Your task to perform on an android device: Open the calendar and show me this week's events Image 0: 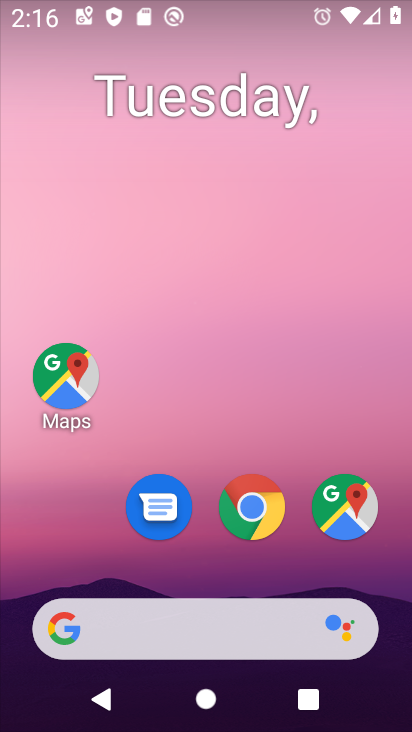
Step 0: drag from (130, 607) to (139, 253)
Your task to perform on an android device: Open the calendar and show me this week's events Image 1: 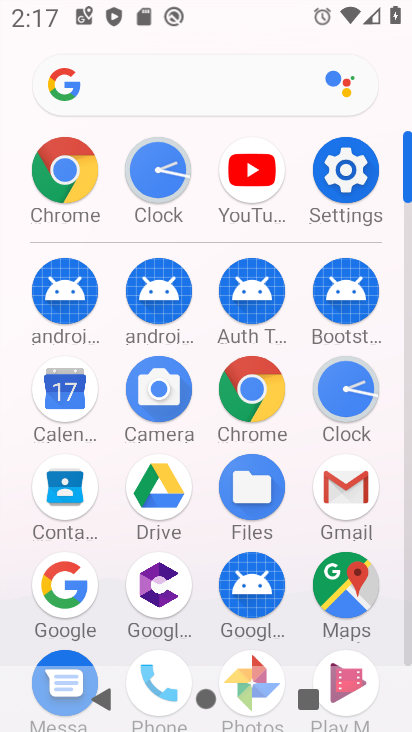
Step 1: click (66, 394)
Your task to perform on an android device: Open the calendar and show me this week's events Image 2: 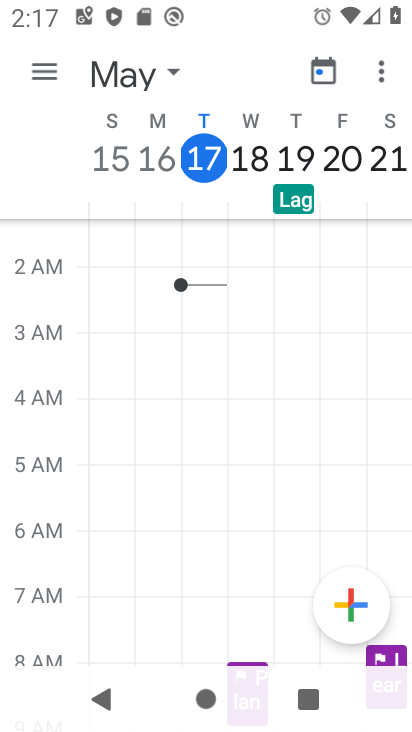
Step 2: click (50, 73)
Your task to perform on an android device: Open the calendar and show me this week's events Image 3: 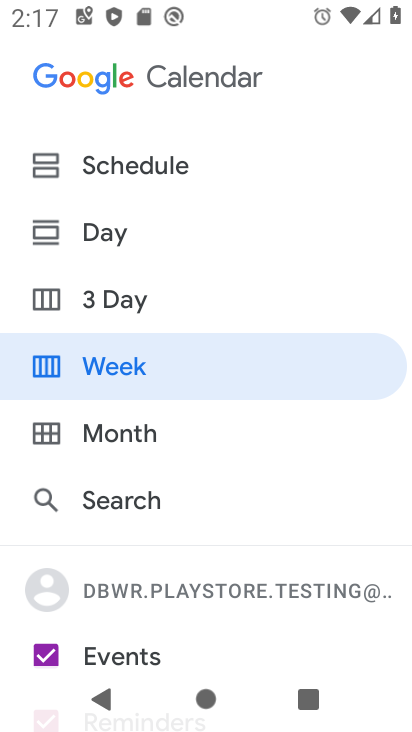
Step 3: click (114, 353)
Your task to perform on an android device: Open the calendar and show me this week's events Image 4: 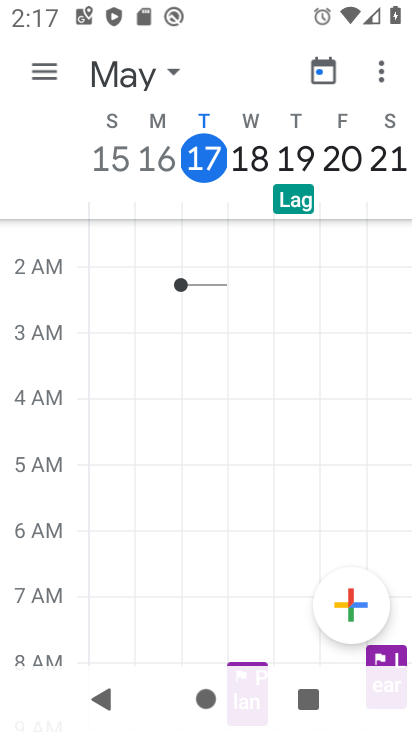
Step 4: task complete